Your task to perform on an android device: choose inbox layout in the gmail app Image 0: 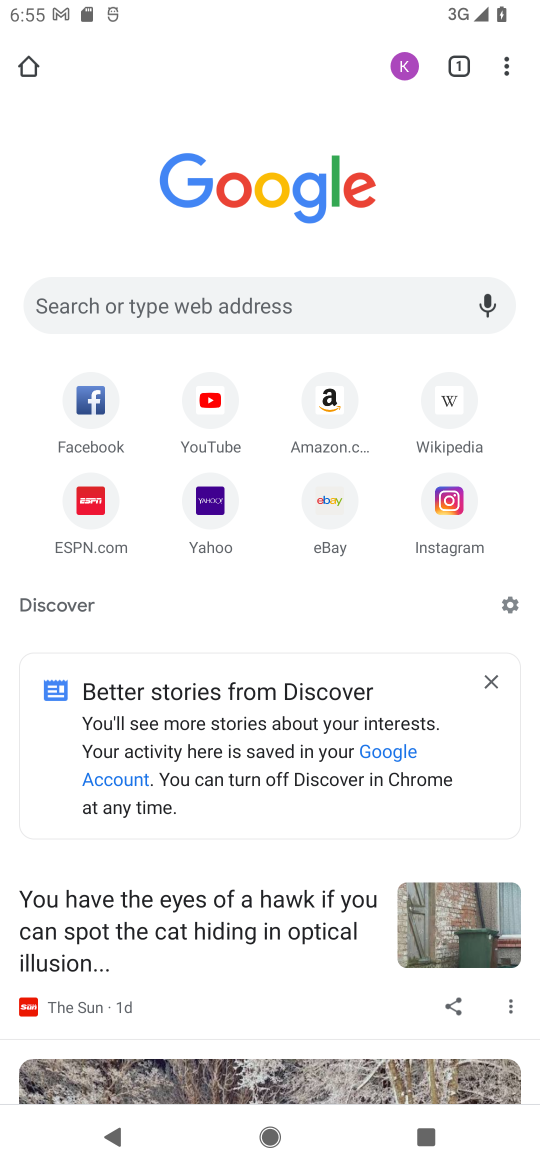
Step 0: press home button
Your task to perform on an android device: choose inbox layout in the gmail app Image 1: 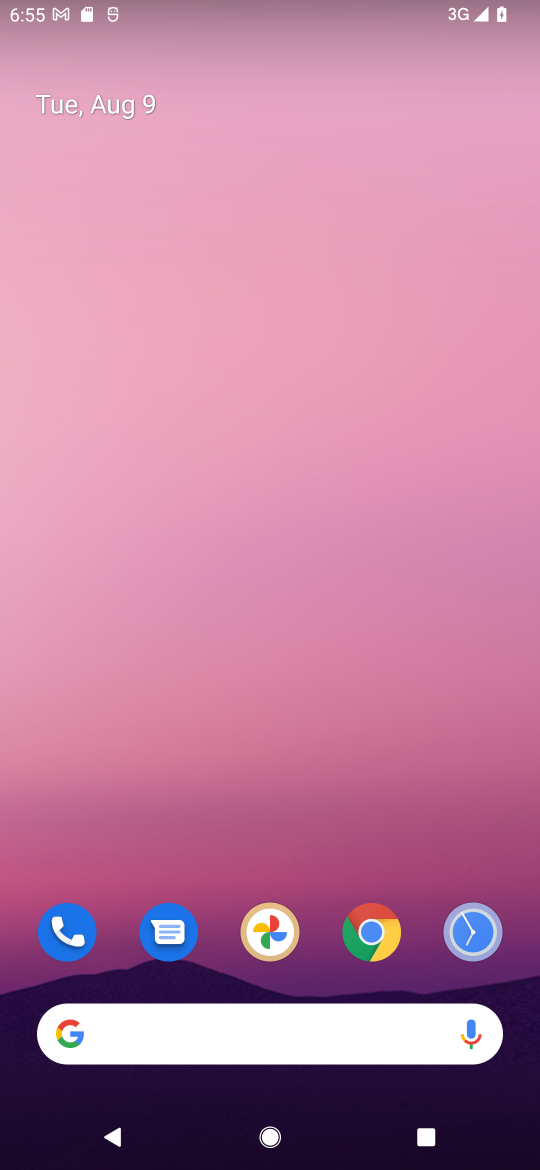
Step 1: drag from (329, 983) to (291, 419)
Your task to perform on an android device: choose inbox layout in the gmail app Image 2: 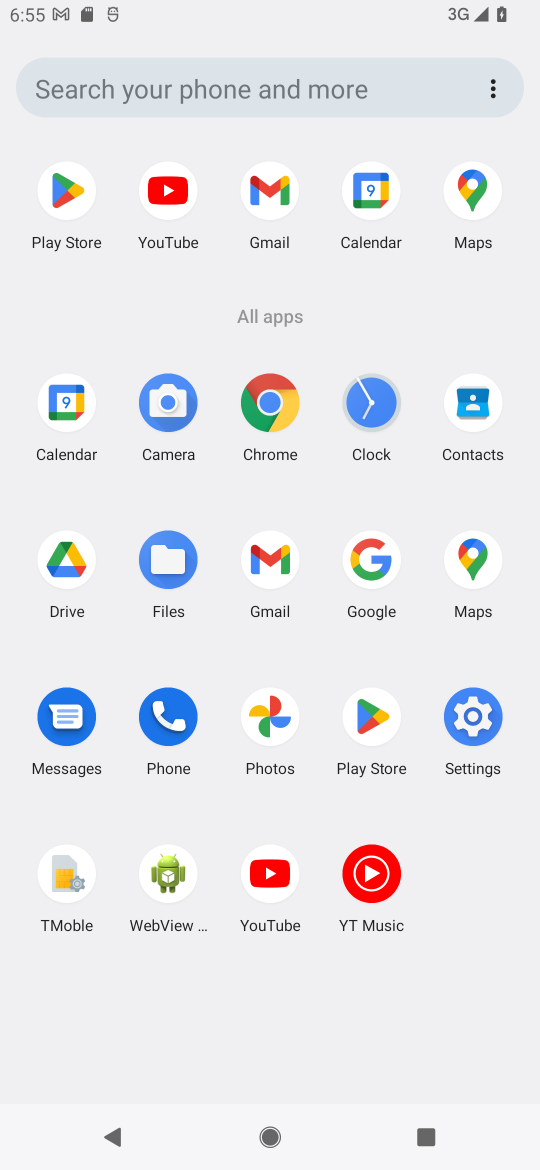
Step 2: click (262, 587)
Your task to perform on an android device: choose inbox layout in the gmail app Image 3: 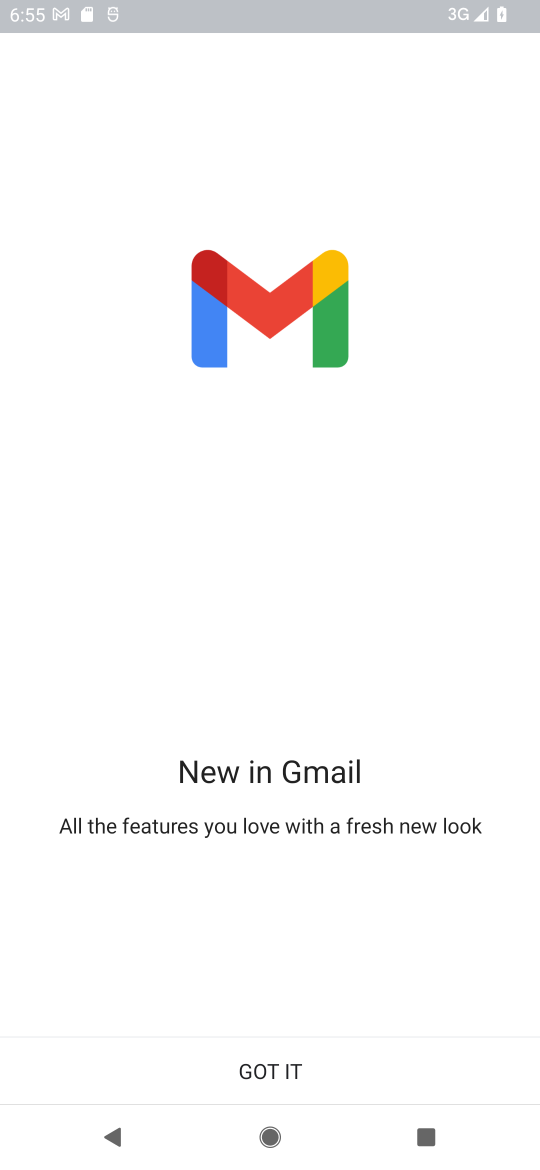
Step 3: click (268, 1048)
Your task to perform on an android device: choose inbox layout in the gmail app Image 4: 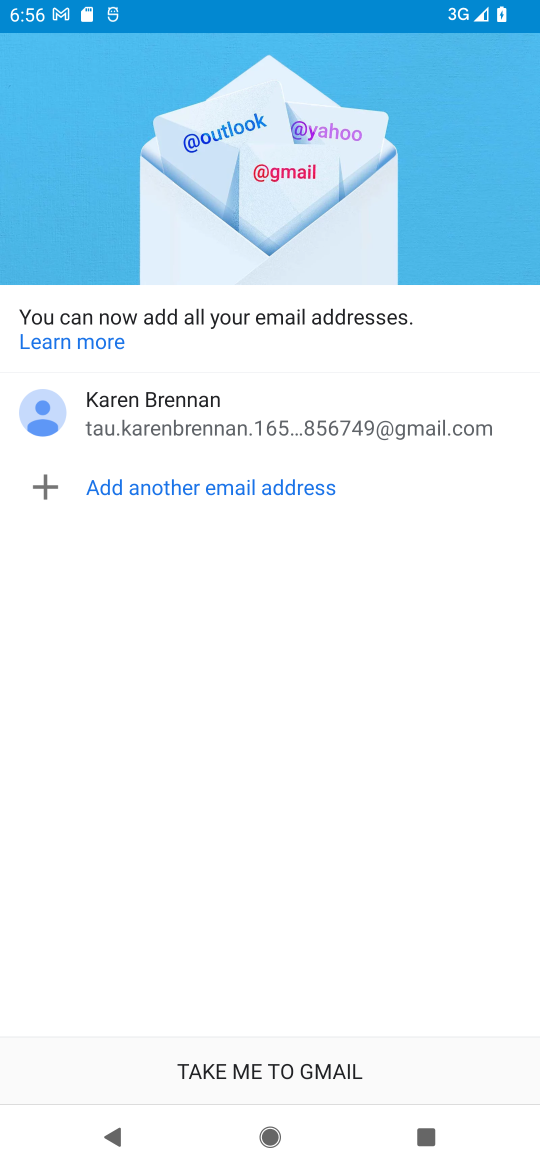
Step 4: click (259, 1079)
Your task to perform on an android device: choose inbox layout in the gmail app Image 5: 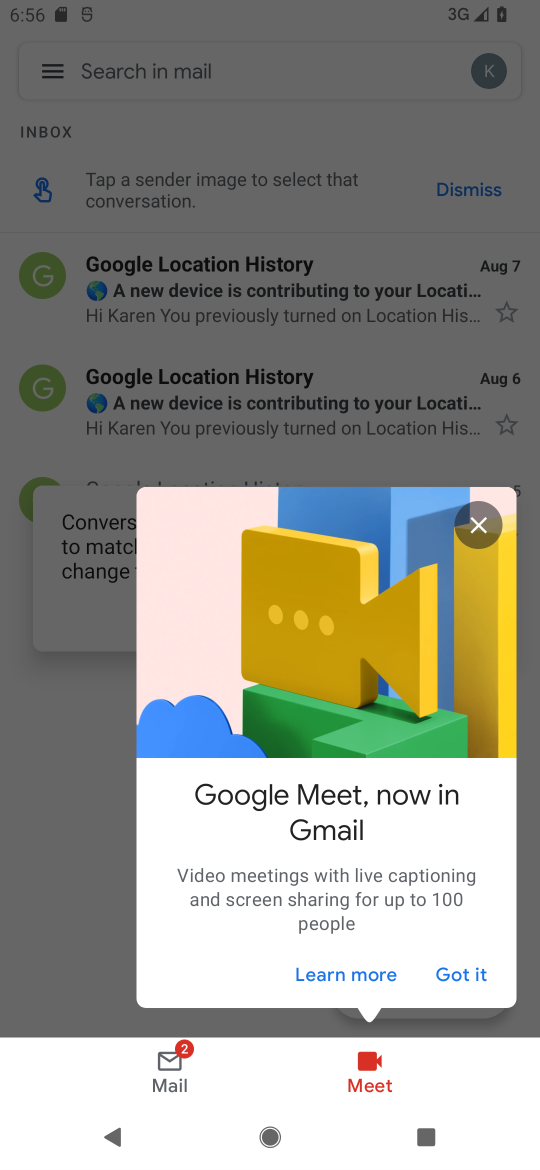
Step 5: click (467, 986)
Your task to perform on an android device: choose inbox layout in the gmail app Image 6: 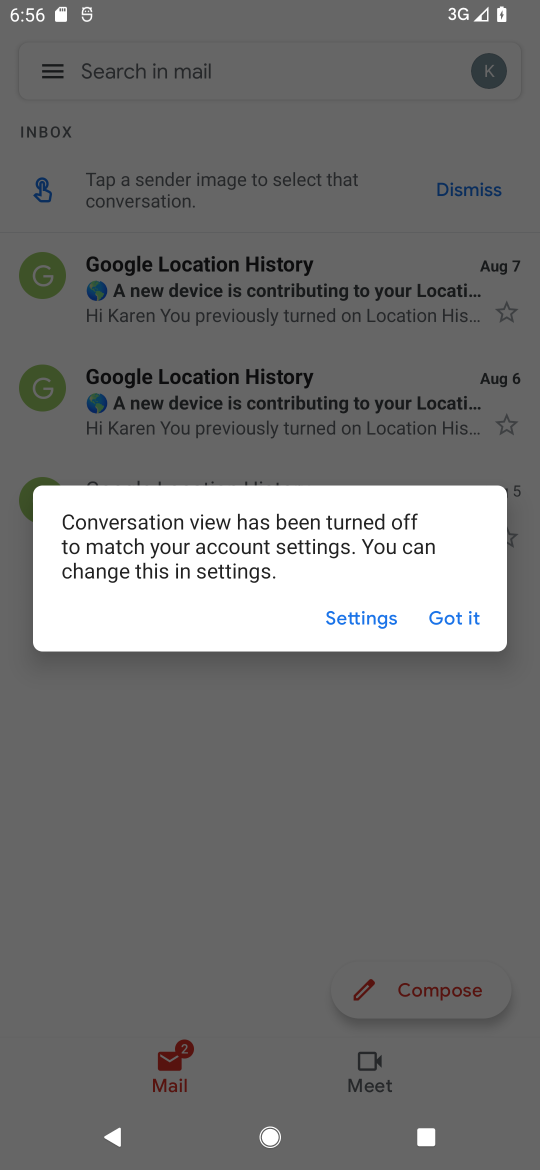
Step 6: click (463, 623)
Your task to perform on an android device: choose inbox layout in the gmail app Image 7: 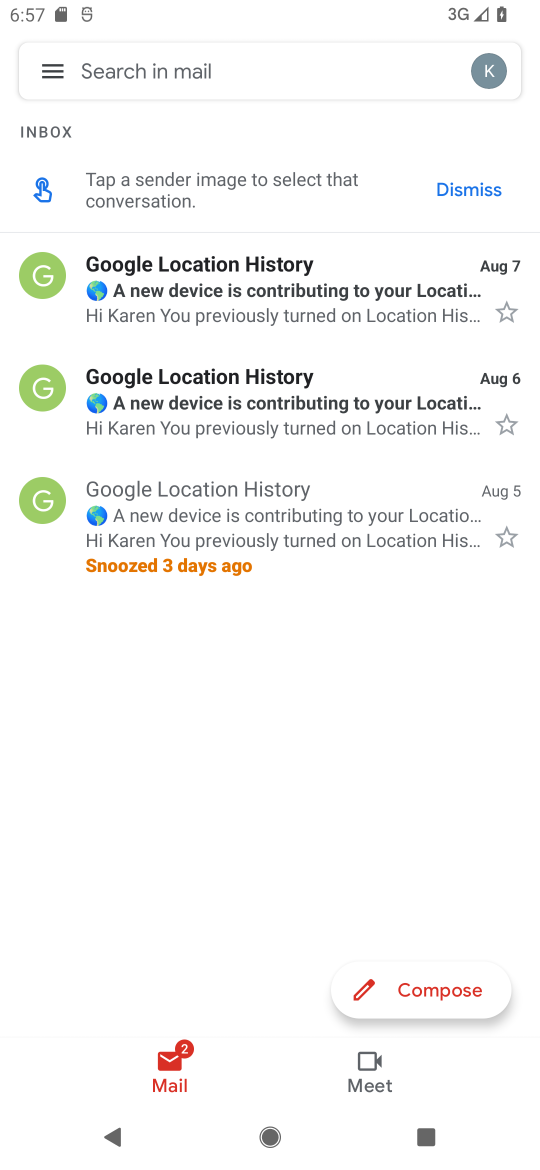
Step 7: task complete